Your task to perform on an android device: turn off notifications settings in the gmail app Image 0: 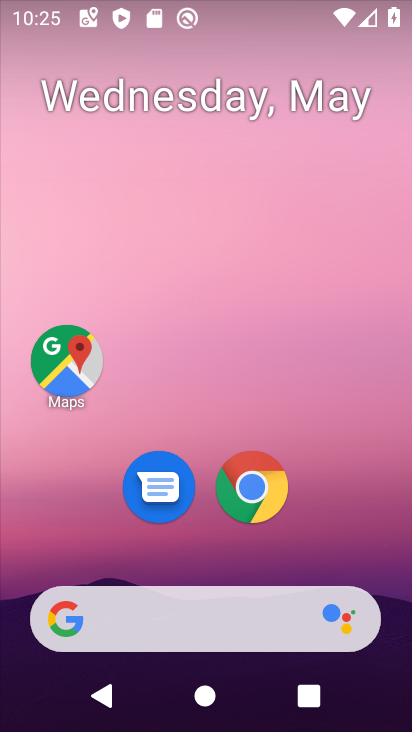
Step 0: drag from (218, 568) to (329, 8)
Your task to perform on an android device: turn off notifications settings in the gmail app Image 1: 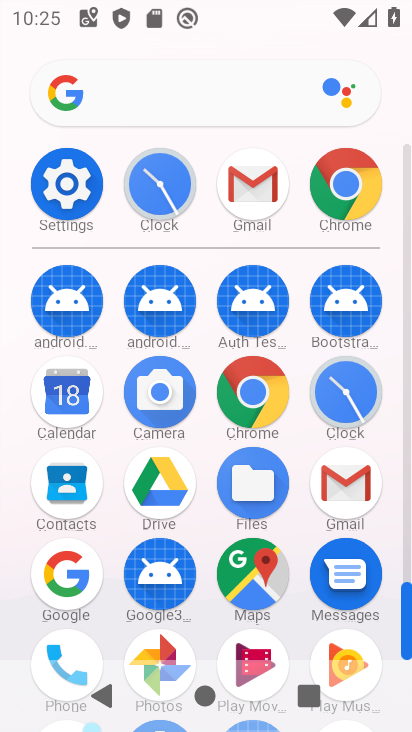
Step 1: click (332, 507)
Your task to perform on an android device: turn off notifications settings in the gmail app Image 2: 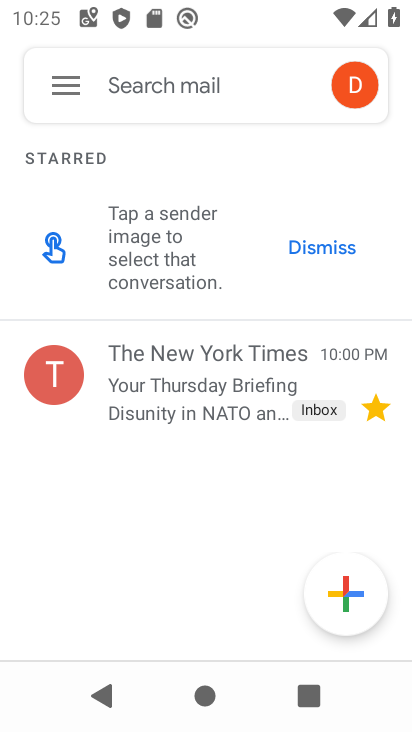
Step 2: click (56, 82)
Your task to perform on an android device: turn off notifications settings in the gmail app Image 3: 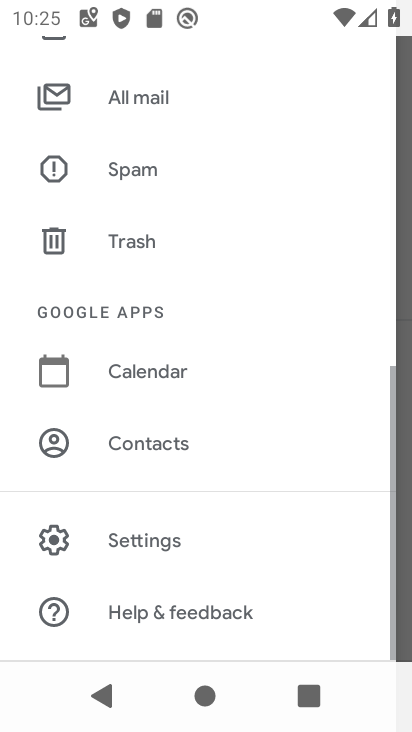
Step 3: click (140, 553)
Your task to perform on an android device: turn off notifications settings in the gmail app Image 4: 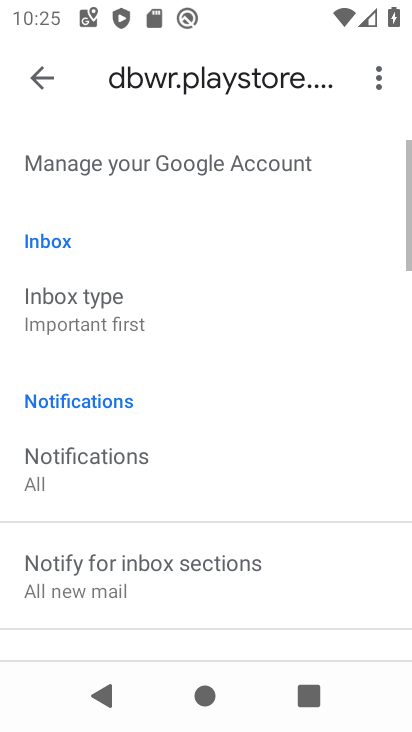
Step 4: drag from (140, 550) to (121, 448)
Your task to perform on an android device: turn off notifications settings in the gmail app Image 5: 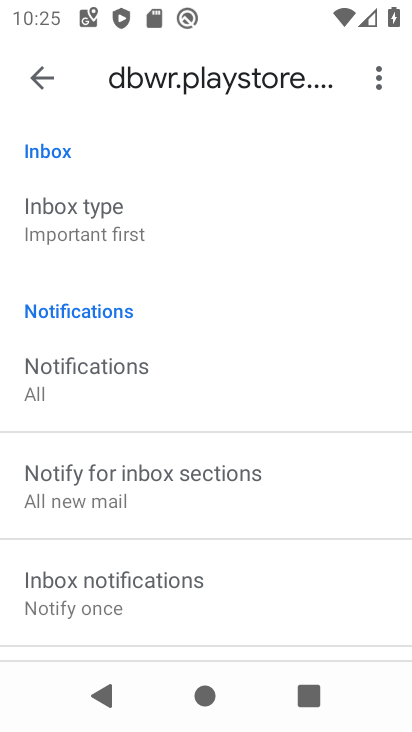
Step 5: drag from (137, 271) to (110, 586)
Your task to perform on an android device: turn off notifications settings in the gmail app Image 6: 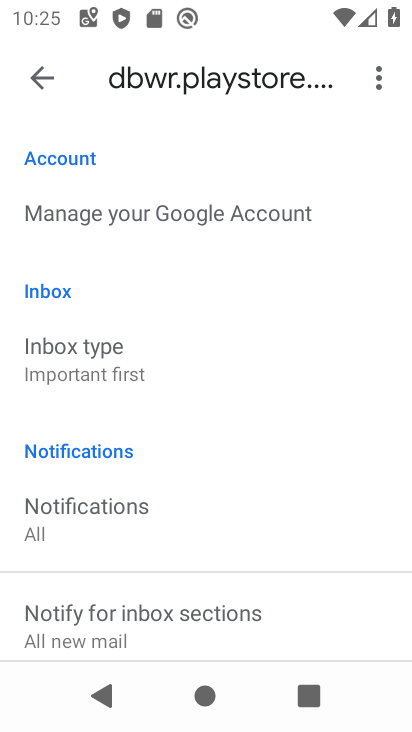
Step 6: drag from (186, 479) to (153, 123)
Your task to perform on an android device: turn off notifications settings in the gmail app Image 7: 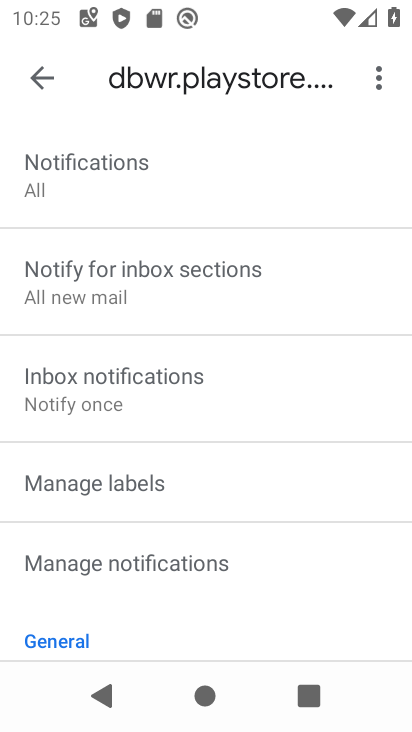
Step 7: click (21, 82)
Your task to perform on an android device: turn off notifications settings in the gmail app Image 8: 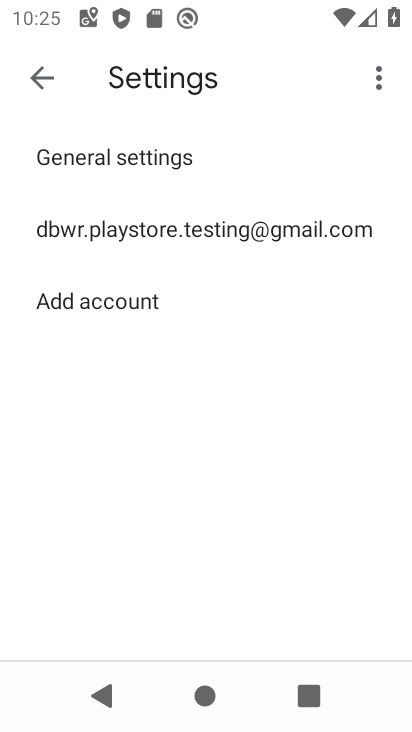
Step 8: click (82, 152)
Your task to perform on an android device: turn off notifications settings in the gmail app Image 9: 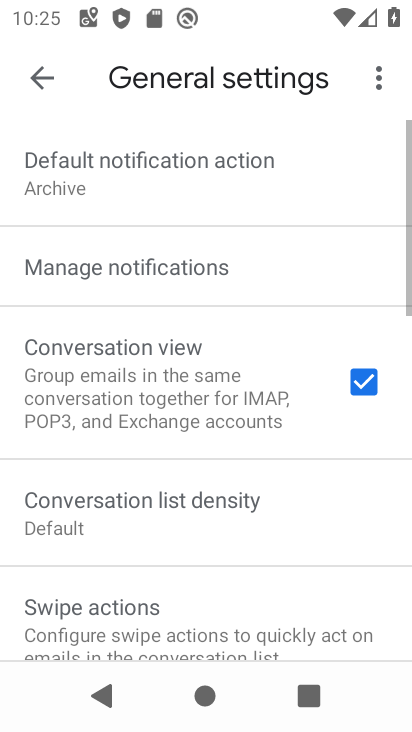
Step 9: click (222, 284)
Your task to perform on an android device: turn off notifications settings in the gmail app Image 10: 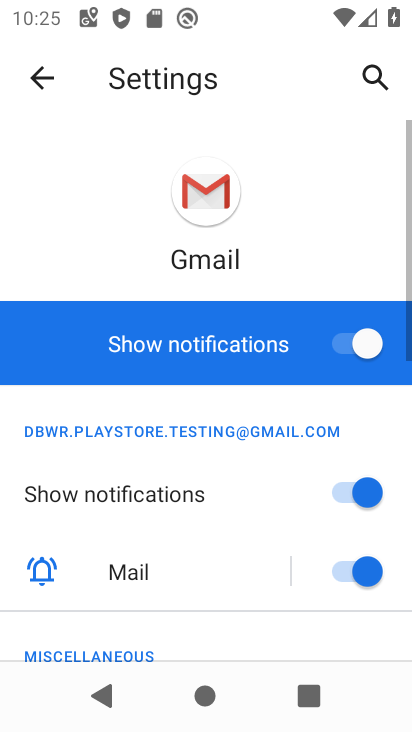
Step 10: click (346, 338)
Your task to perform on an android device: turn off notifications settings in the gmail app Image 11: 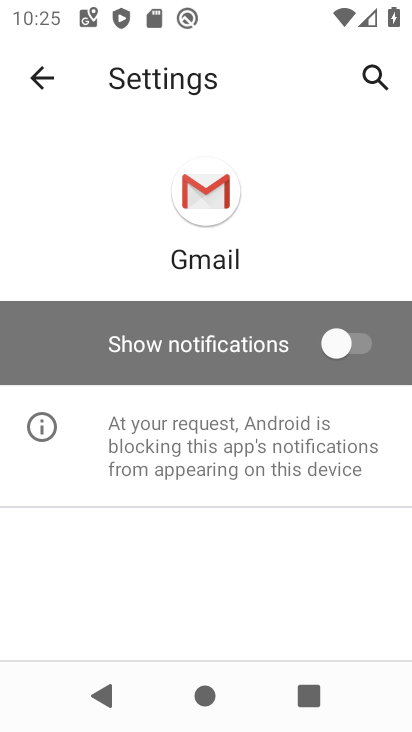
Step 11: task complete